Your task to perform on an android device: turn off javascript in the chrome app Image 0: 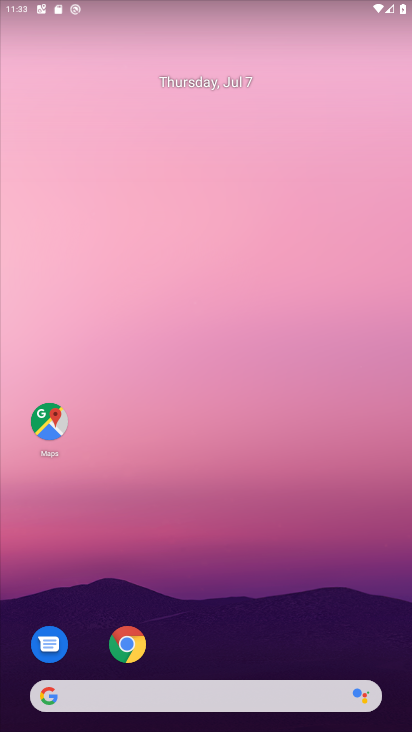
Step 0: click (131, 636)
Your task to perform on an android device: turn off javascript in the chrome app Image 1: 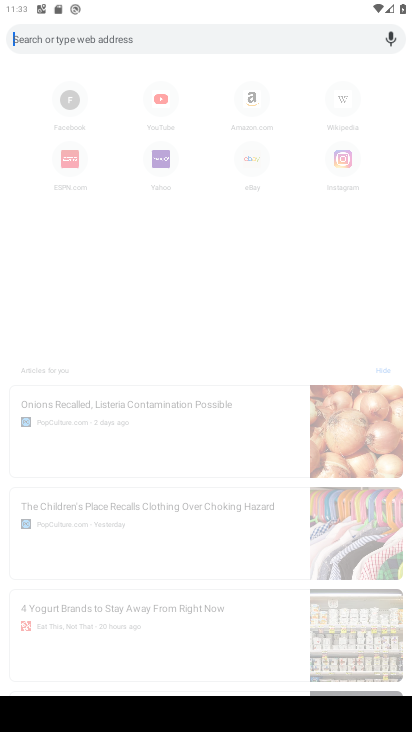
Step 1: click (77, 36)
Your task to perform on an android device: turn off javascript in the chrome app Image 2: 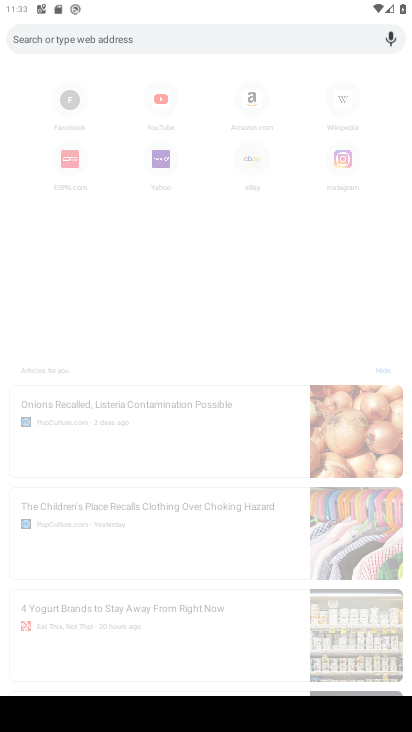
Step 2: click (56, 37)
Your task to perform on an android device: turn off javascript in the chrome app Image 3: 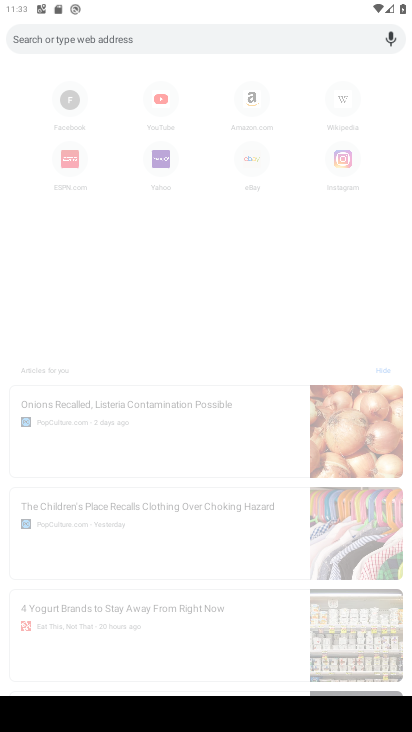
Step 3: click (122, 44)
Your task to perform on an android device: turn off javascript in the chrome app Image 4: 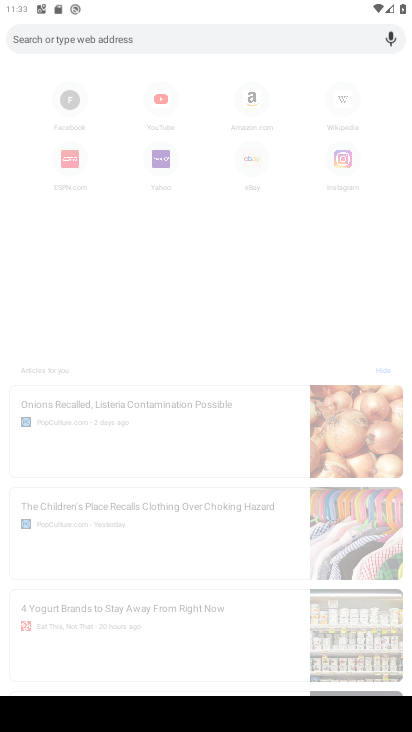
Step 4: press home button
Your task to perform on an android device: turn off javascript in the chrome app Image 5: 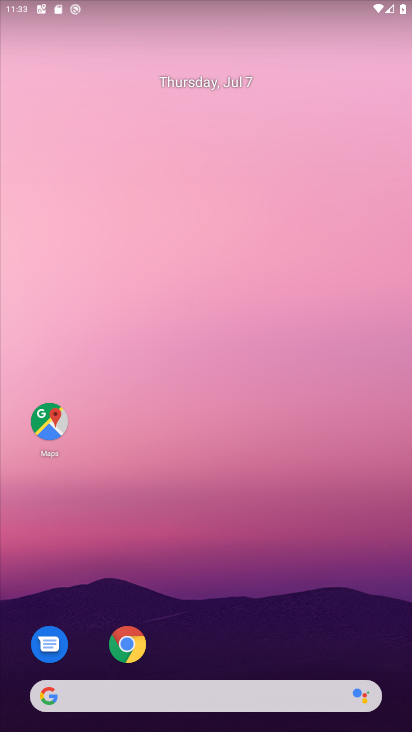
Step 5: click (120, 643)
Your task to perform on an android device: turn off javascript in the chrome app Image 6: 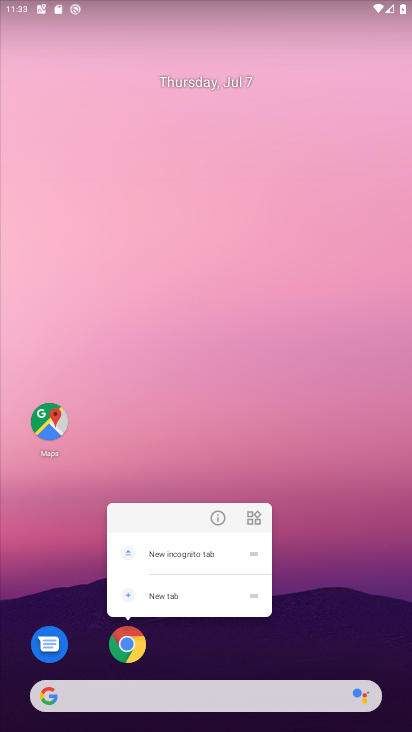
Step 6: click (119, 644)
Your task to perform on an android device: turn off javascript in the chrome app Image 7: 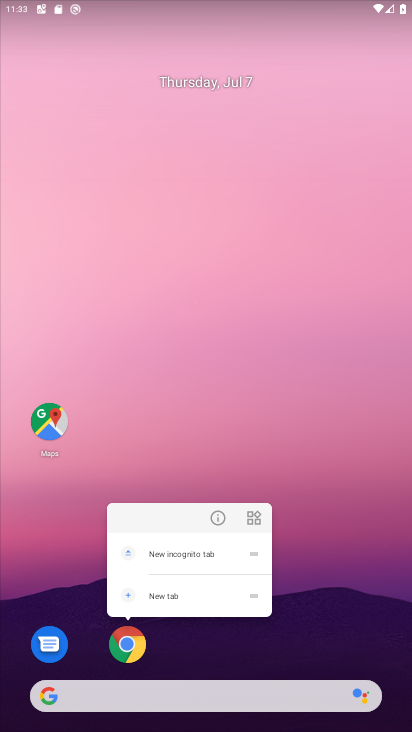
Step 7: click (118, 645)
Your task to perform on an android device: turn off javascript in the chrome app Image 8: 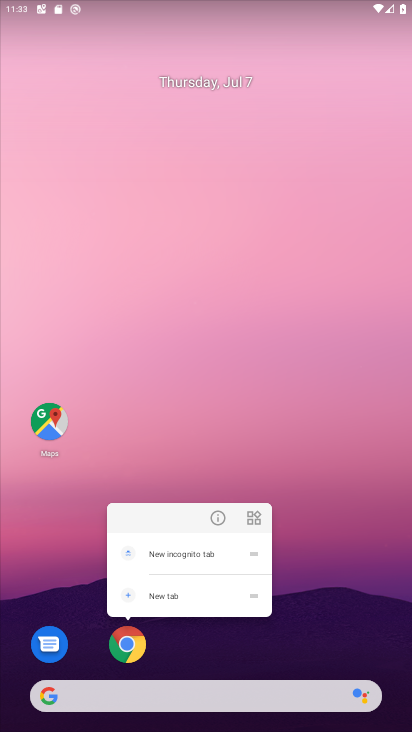
Step 8: click (127, 644)
Your task to perform on an android device: turn off javascript in the chrome app Image 9: 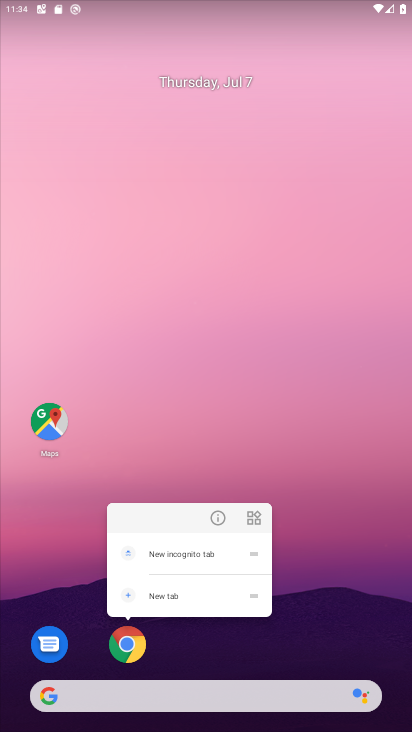
Step 9: task complete